Your task to perform on an android device: Search for a nightstand on IKEA. Image 0: 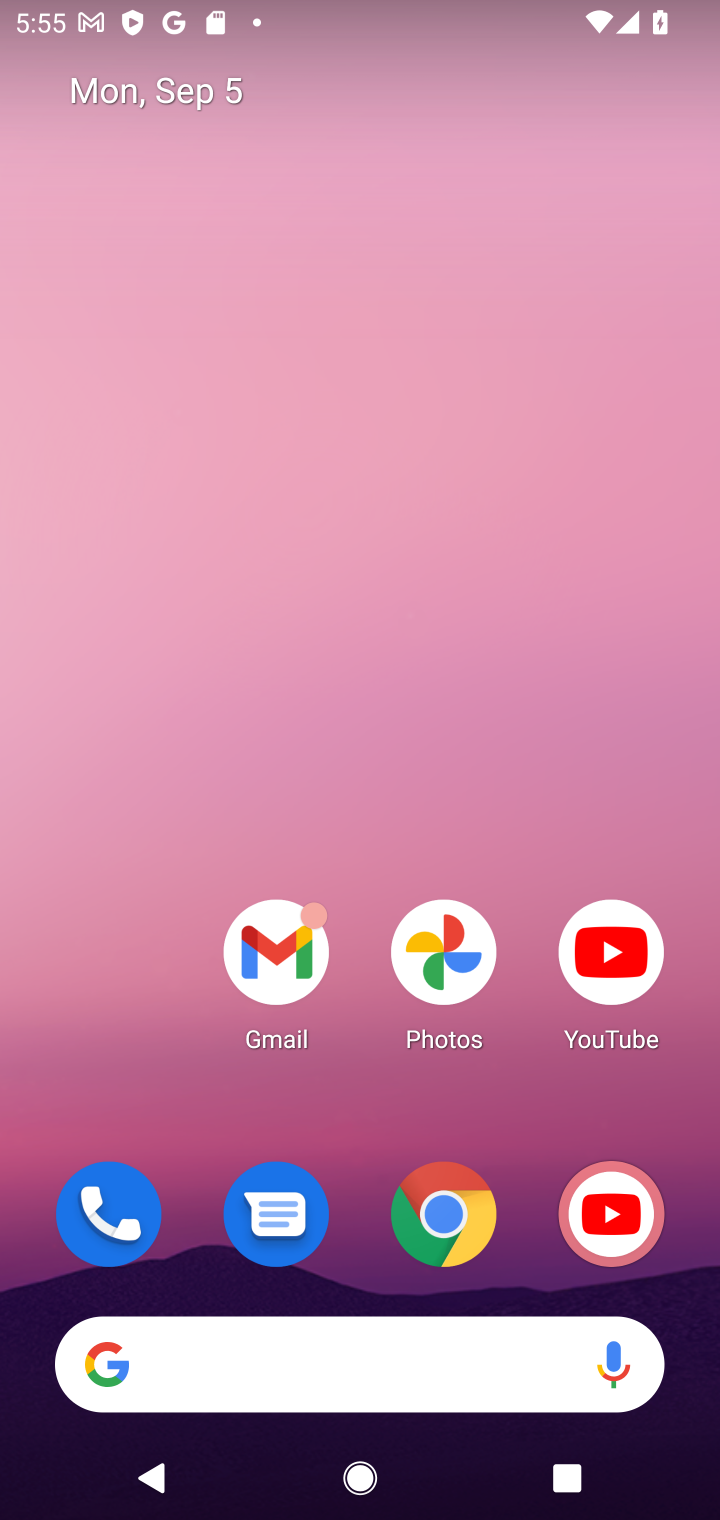
Step 0: click (345, 19)
Your task to perform on an android device: Search for a nightstand on IKEA. Image 1: 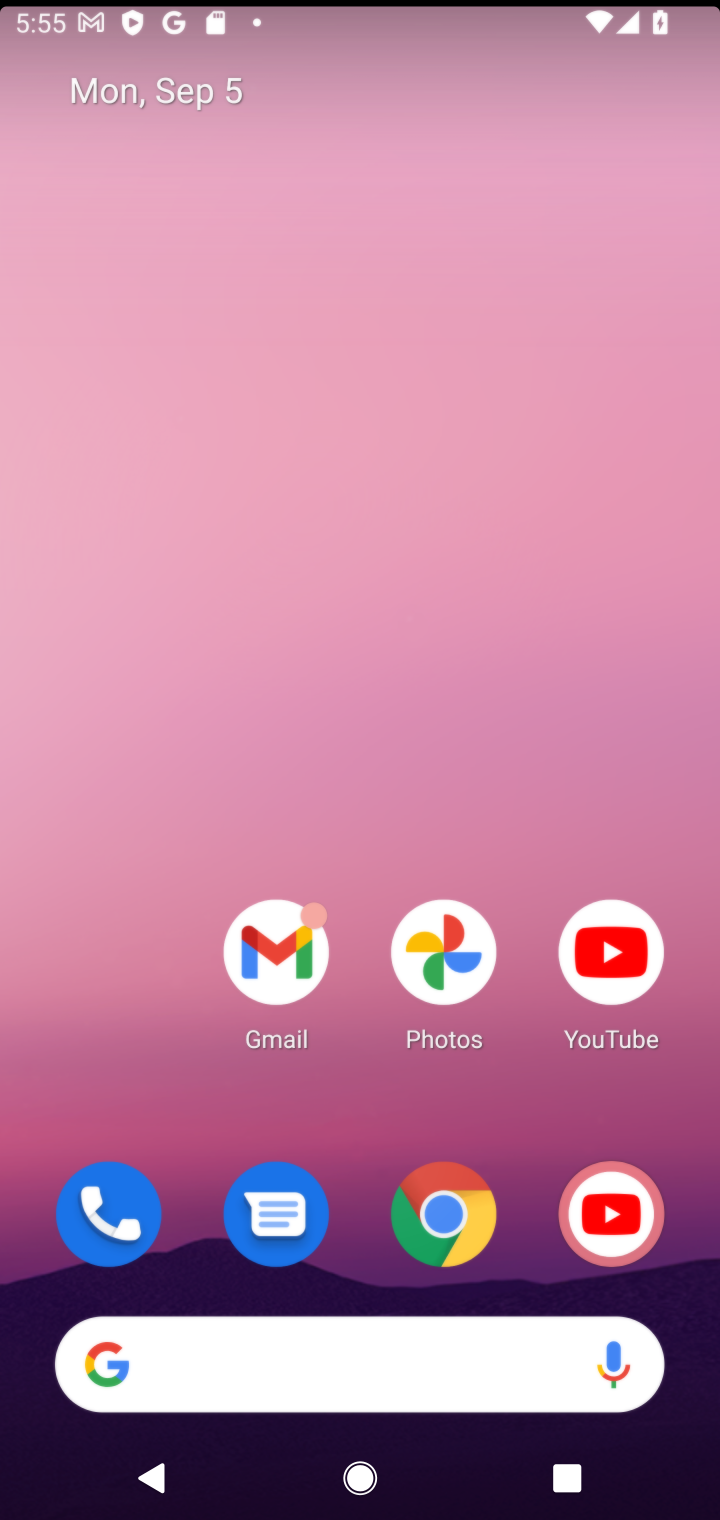
Step 1: drag from (350, 1085) to (443, 109)
Your task to perform on an android device: Search for a nightstand on IKEA. Image 2: 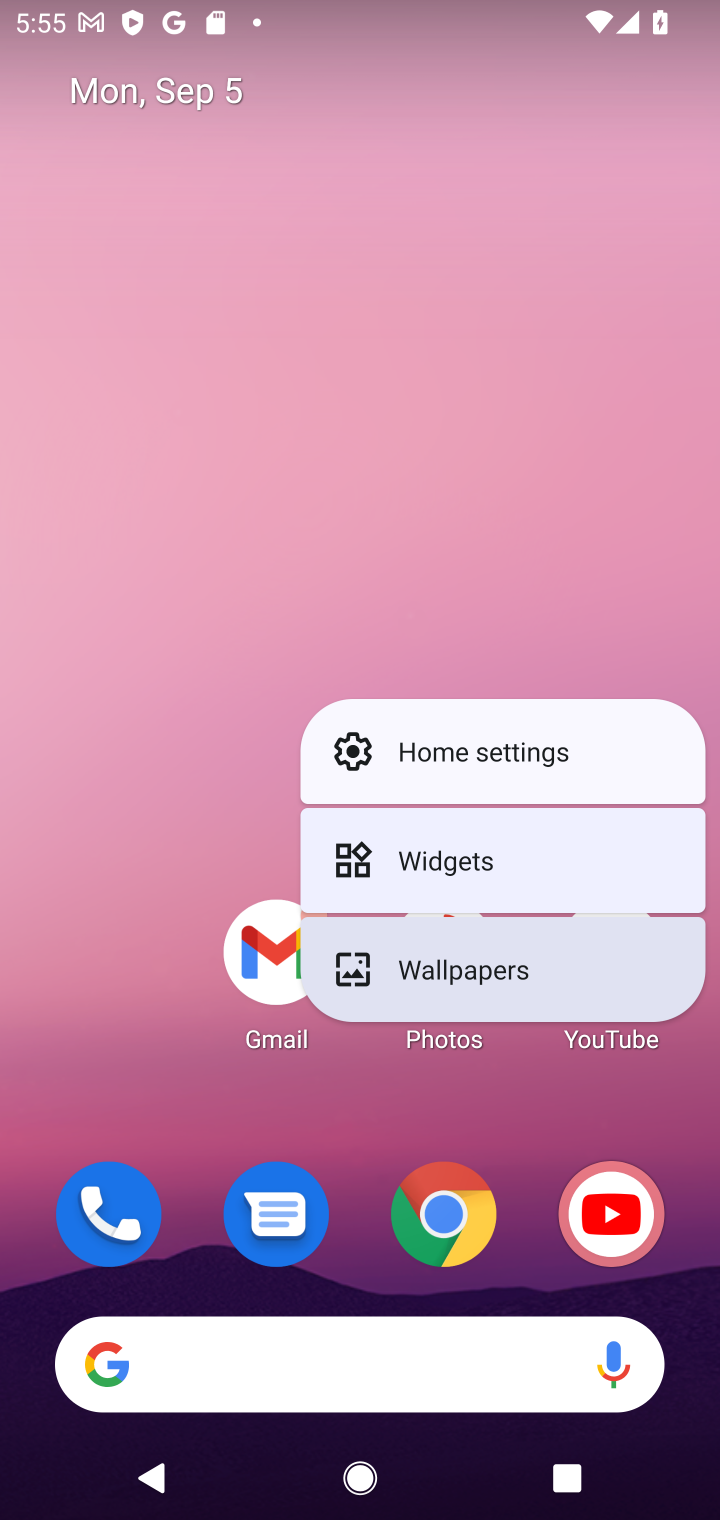
Step 2: click (188, 988)
Your task to perform on an android device: Search for a nightstand on IKEA. Image 3: 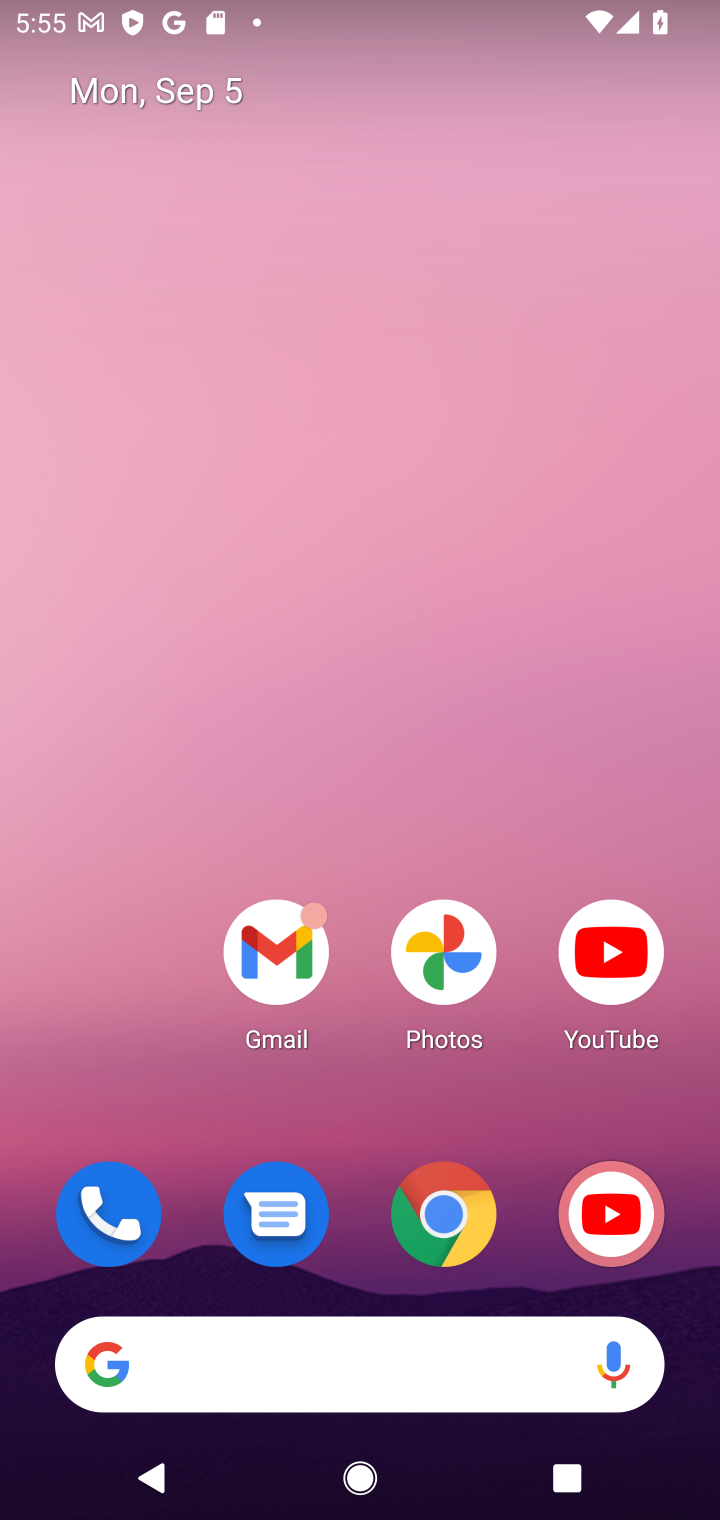
Step 3: click (302, 65)
Your task to perform on an android device: Search for a nightstand on IKEA. Image 4: 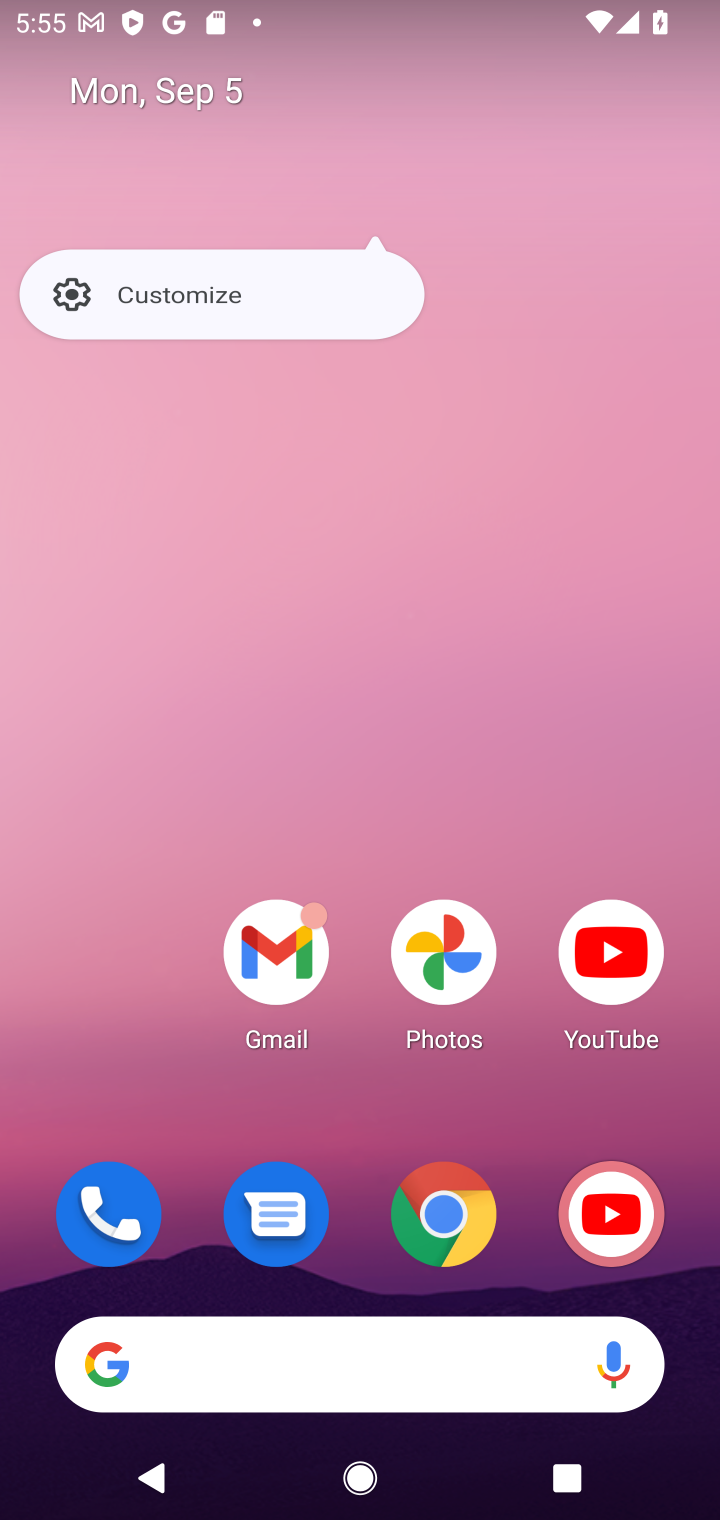
Step 4: click (492, 623)
Your task to perform on an android device: Search for a nightstand on IKEA. Image 5: 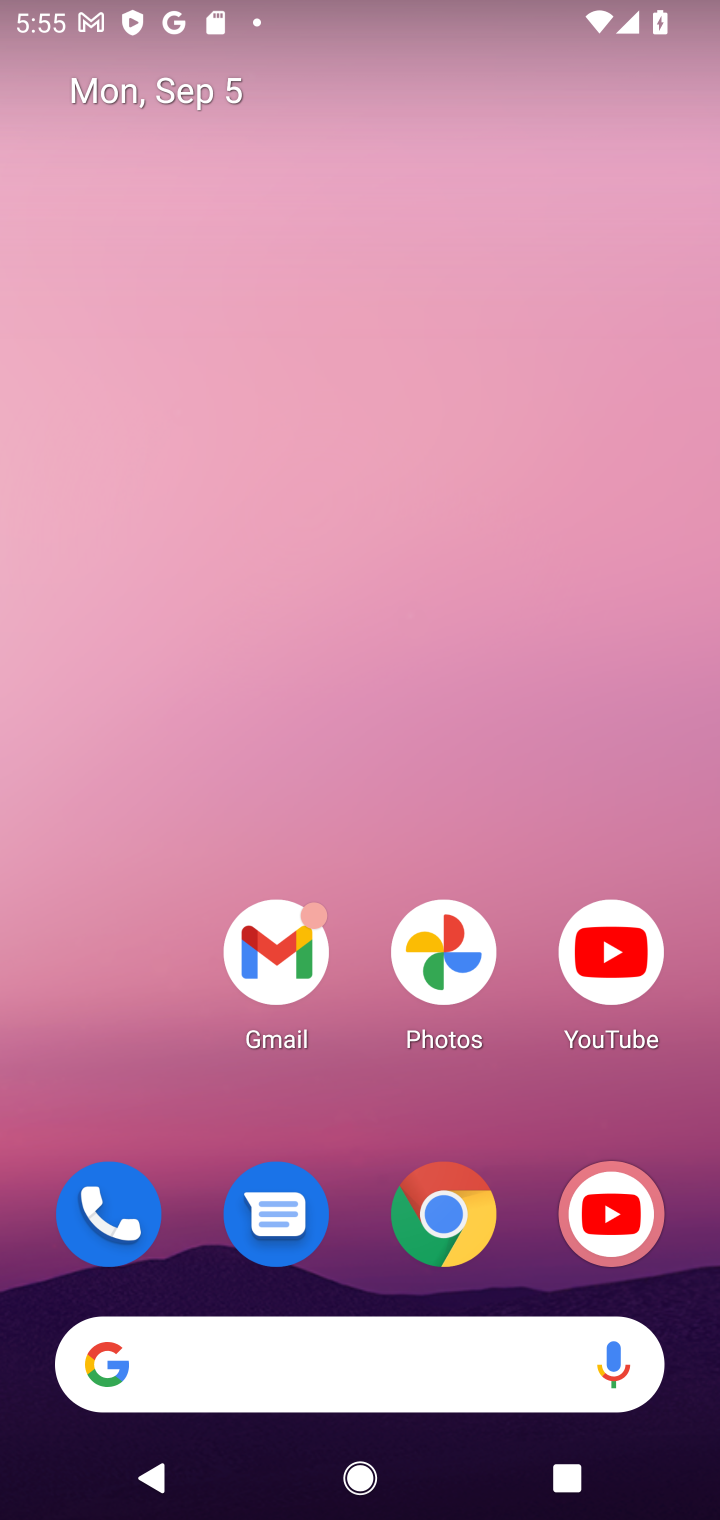
Step 5: click (411, 82)
Your task to perform on an android device: Search for a nightstand on IKEA. Image 6: 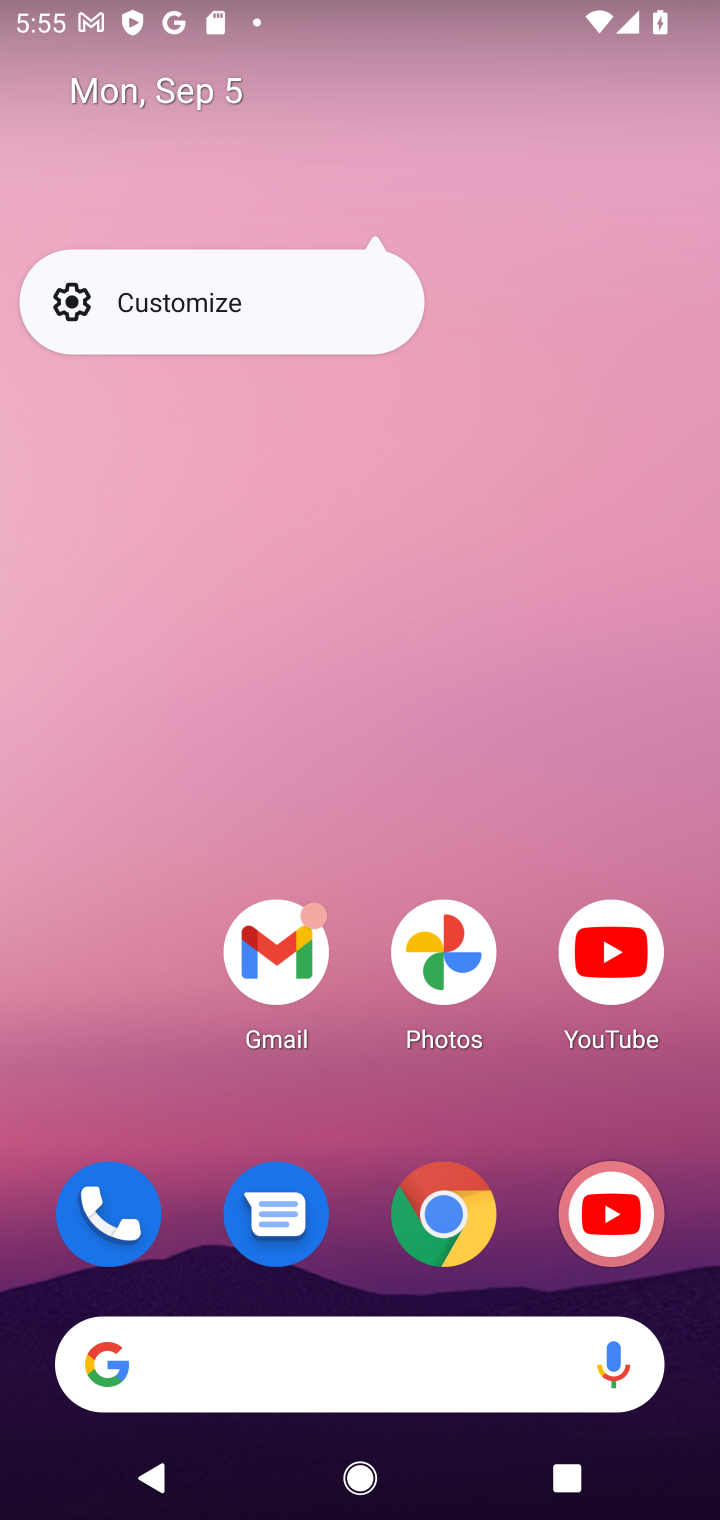
Step 6: drag from (498, 1045) to (338, 19)
Your task to perform on an android device: Search for a nightstand on IKEA. Image 7: 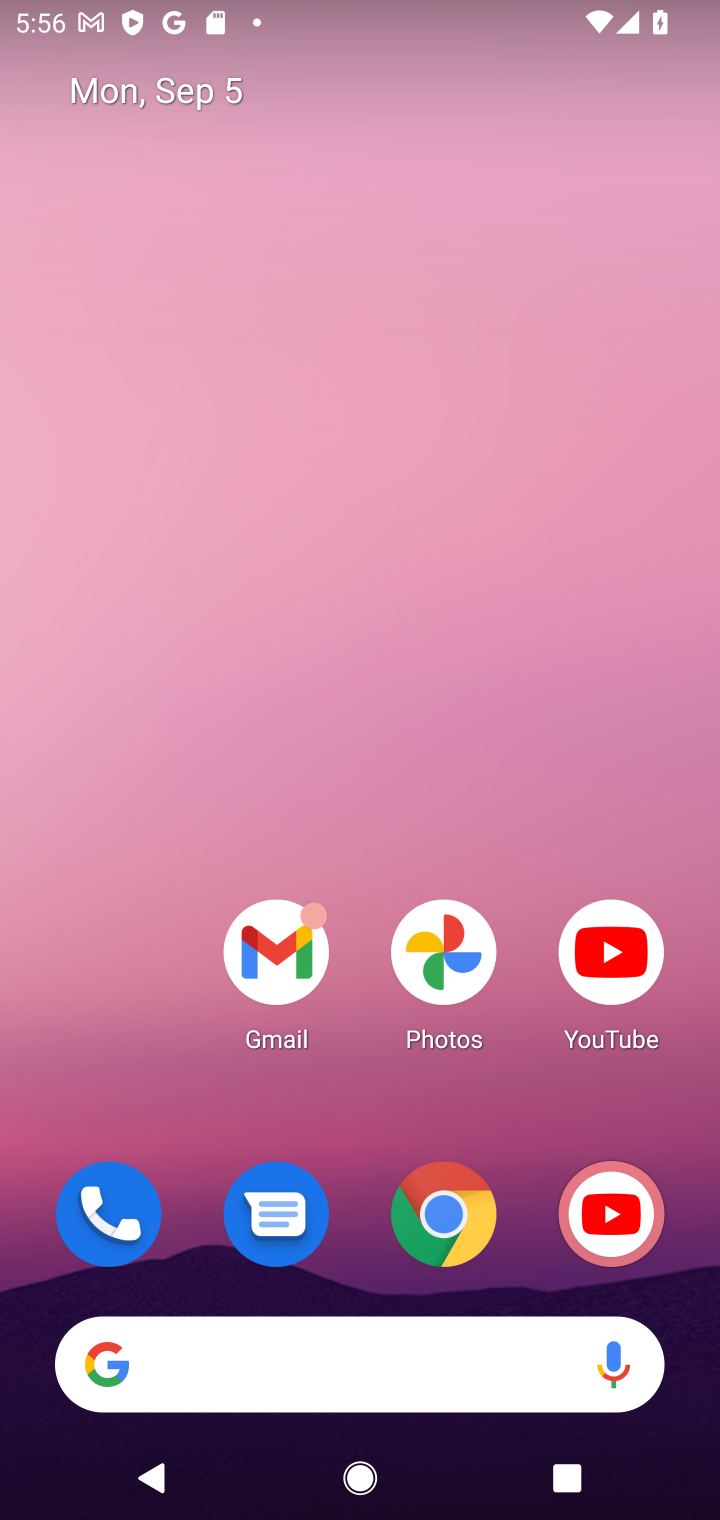
Step 7: click (425, 1209)
Your task to perform on an android device: Search for a nightstand on IKEA. Image 8: 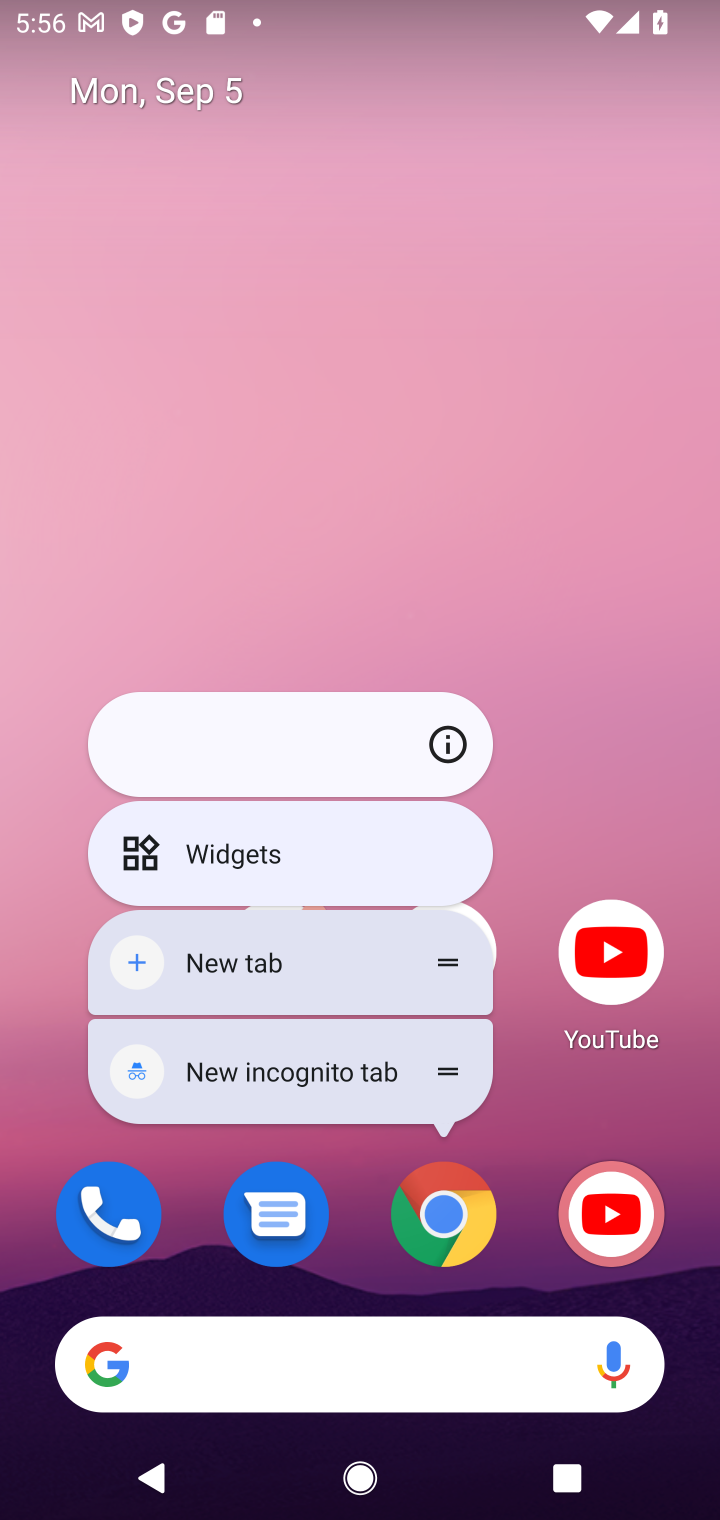
Step 8: click (393, 372)
Your task to perform on an android device: Search for a nightstand on IKEA. Image 9: 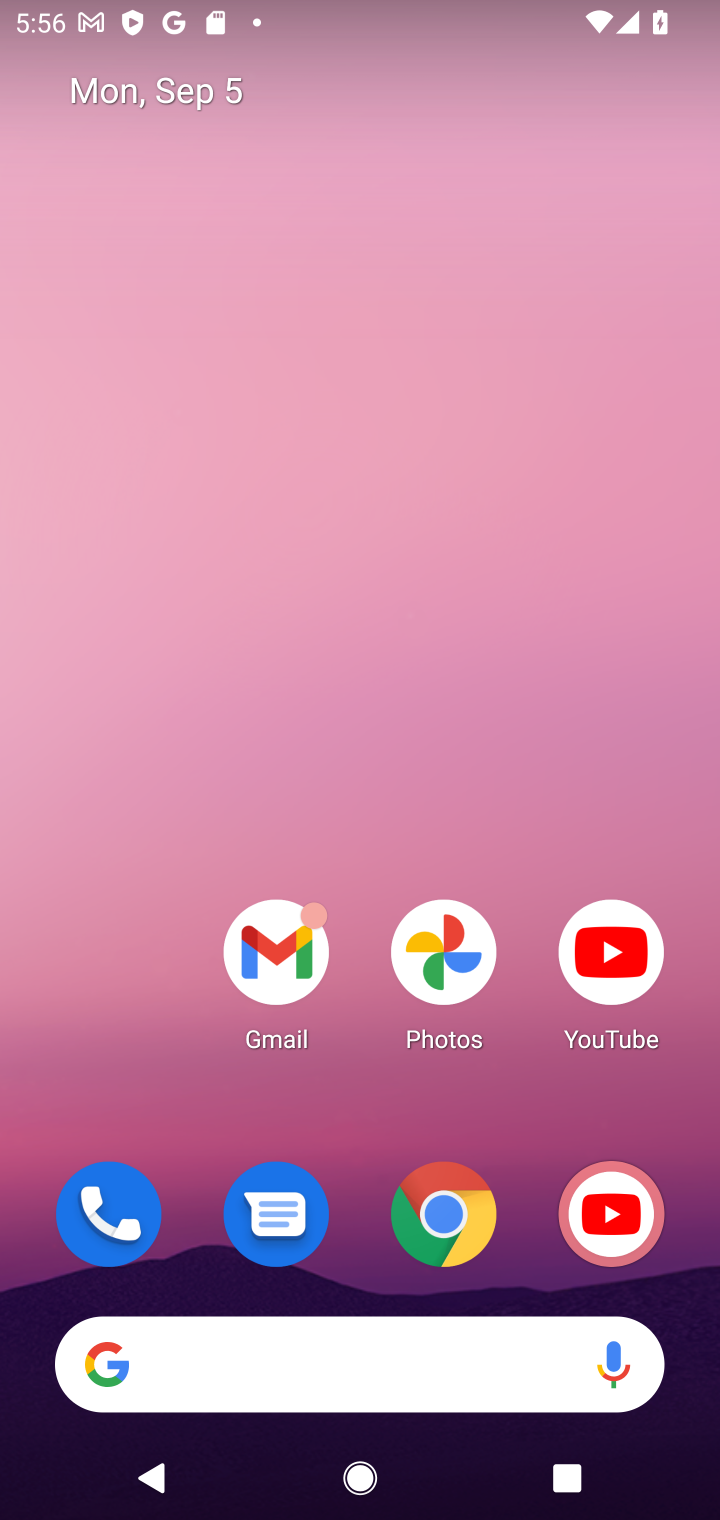
Step 9: click (429, 1210)
Your task to perform on an android device: Search for a nightstand on IKEA. Image 10: 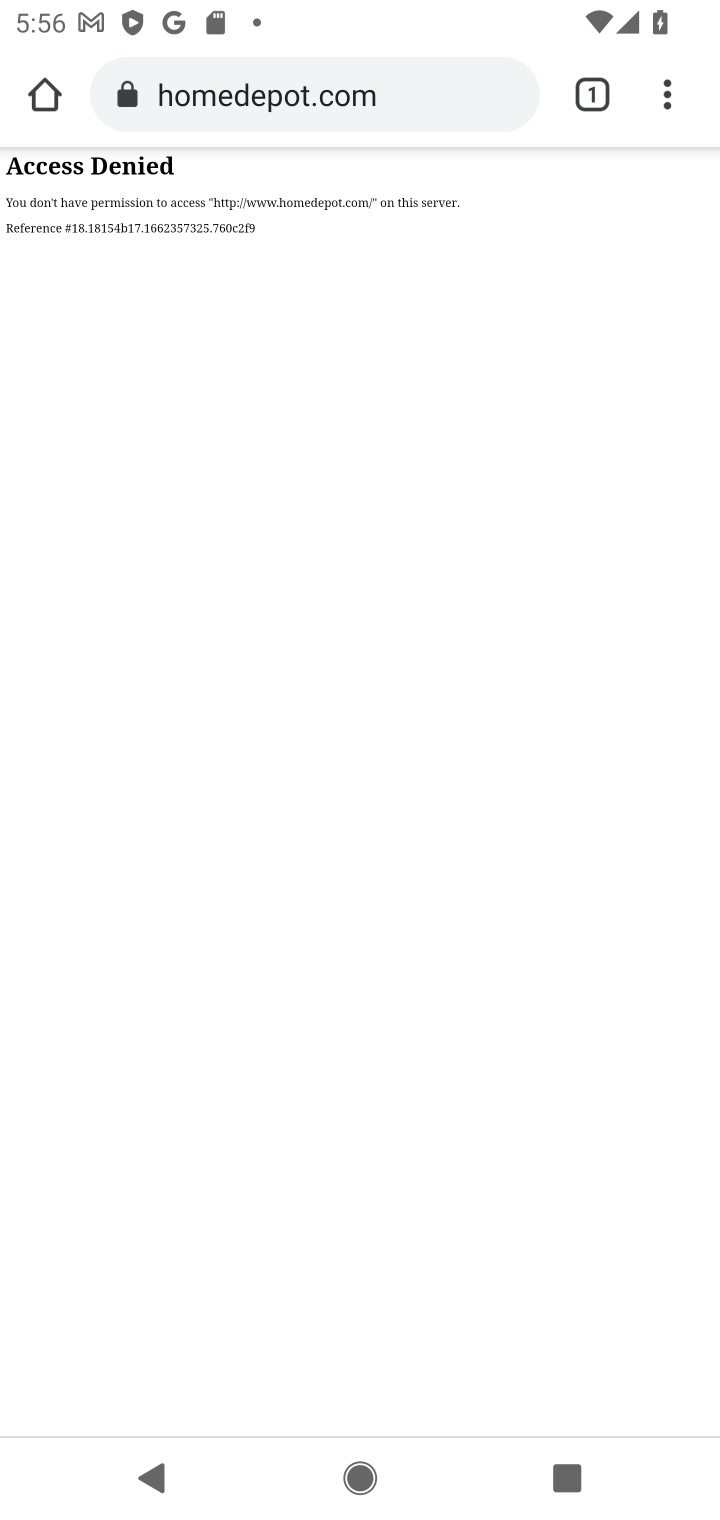
Step 10: click (316, 86)
Your task to perform on an android device: Search for a nightstand on IKEA. Image 11: 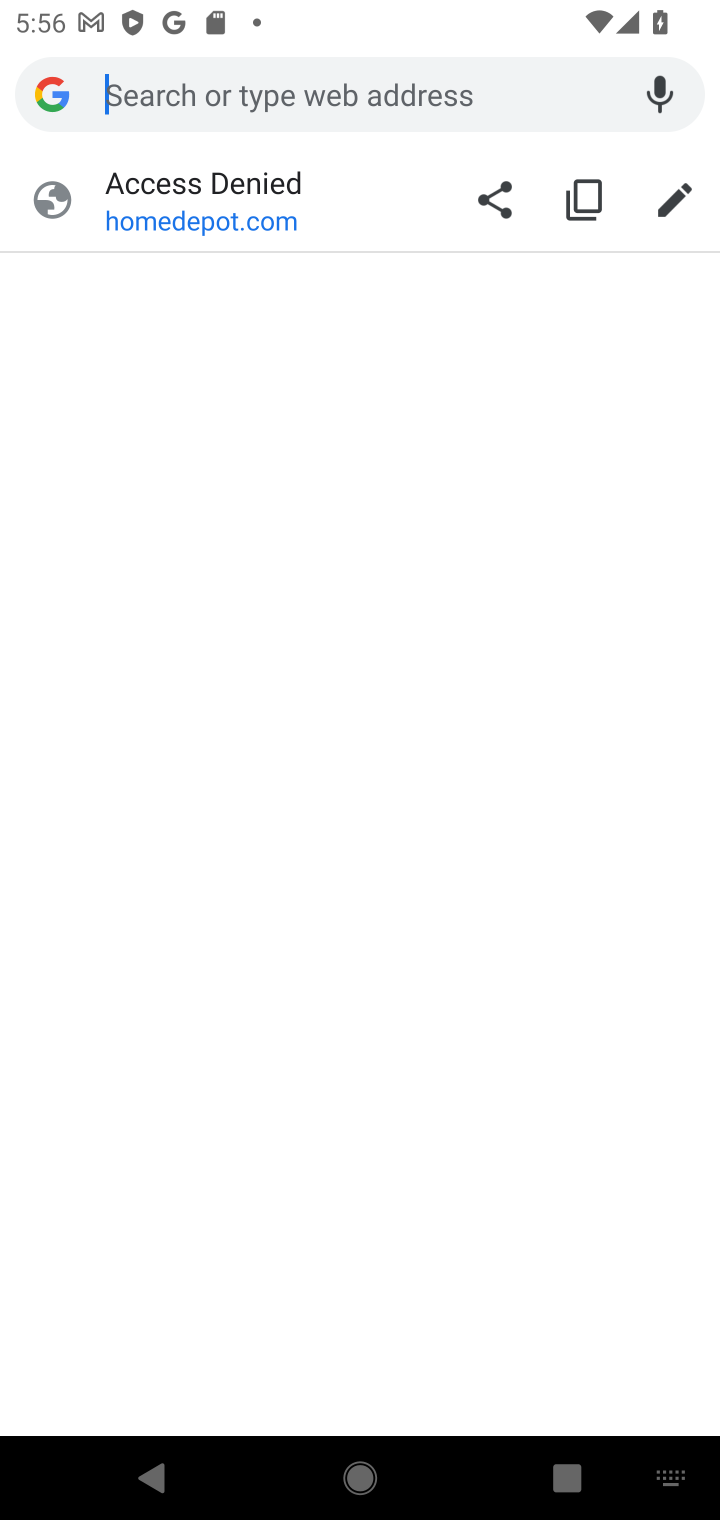
Step 11: type " IKEA"
Your task to perform on an android device: Search for a nightstand on IKEA. Image 12: 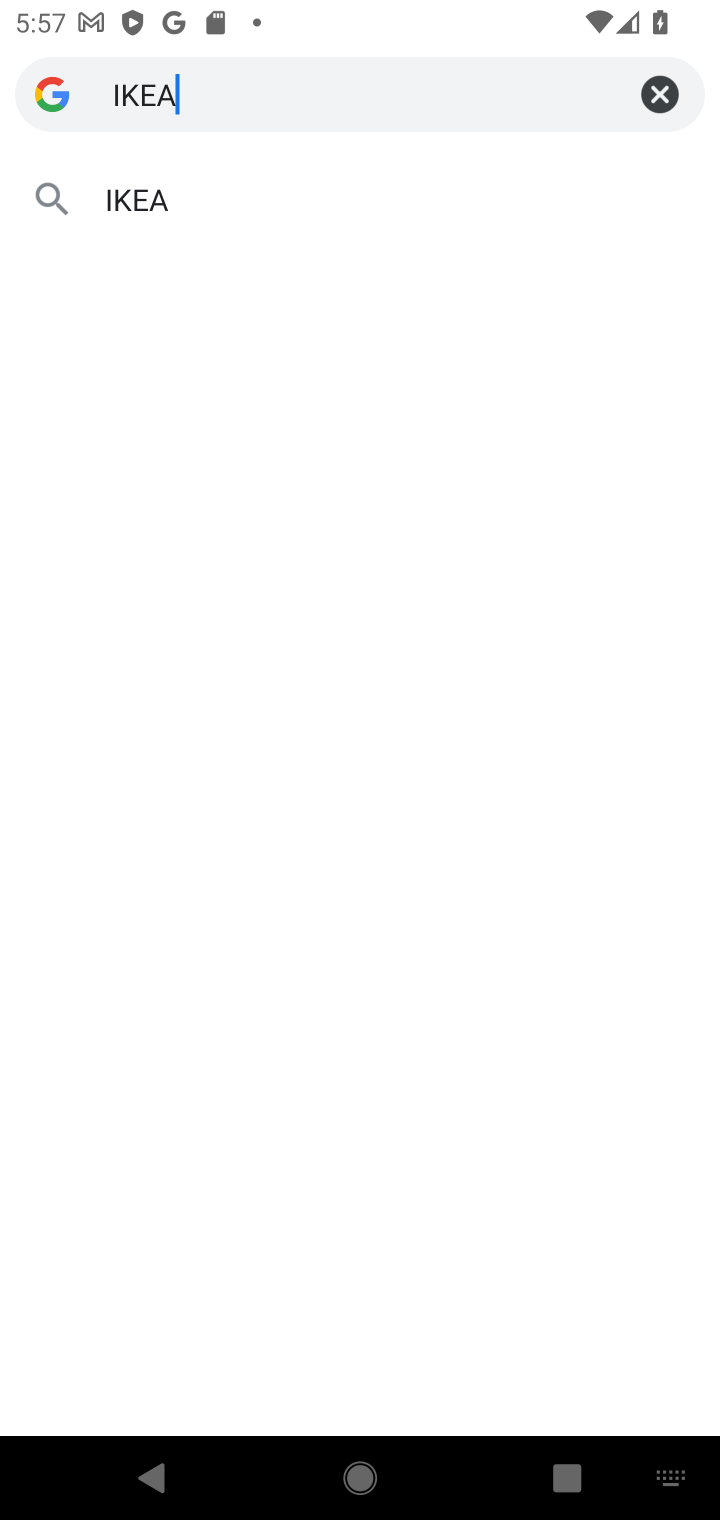
Step 12: click (120, 196)
Your task to perform on an android device: Search for a nightstand on IKEA. Image 13: 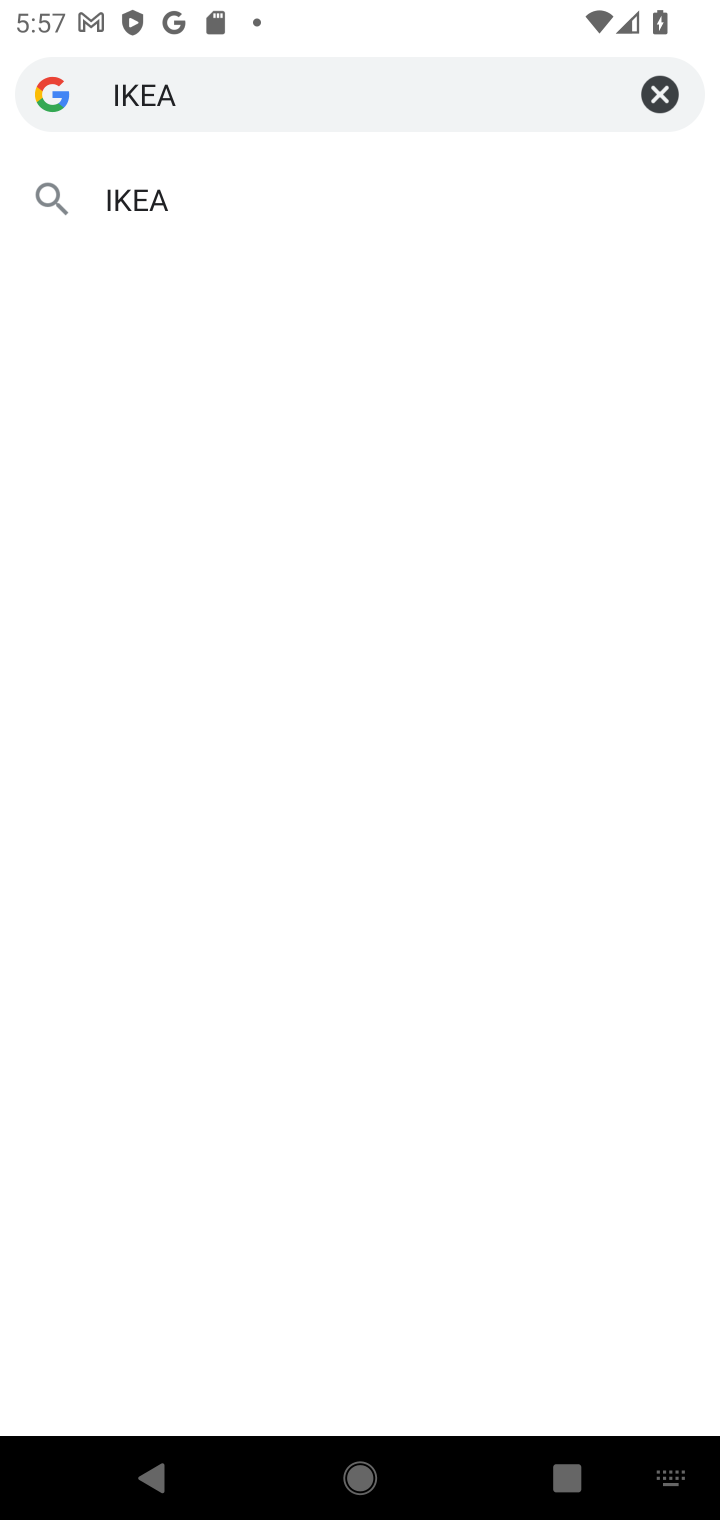
Step 13: click (123, 213)
Your task to perform on an android device: Search for a nightstand on IKEA. Image 14: 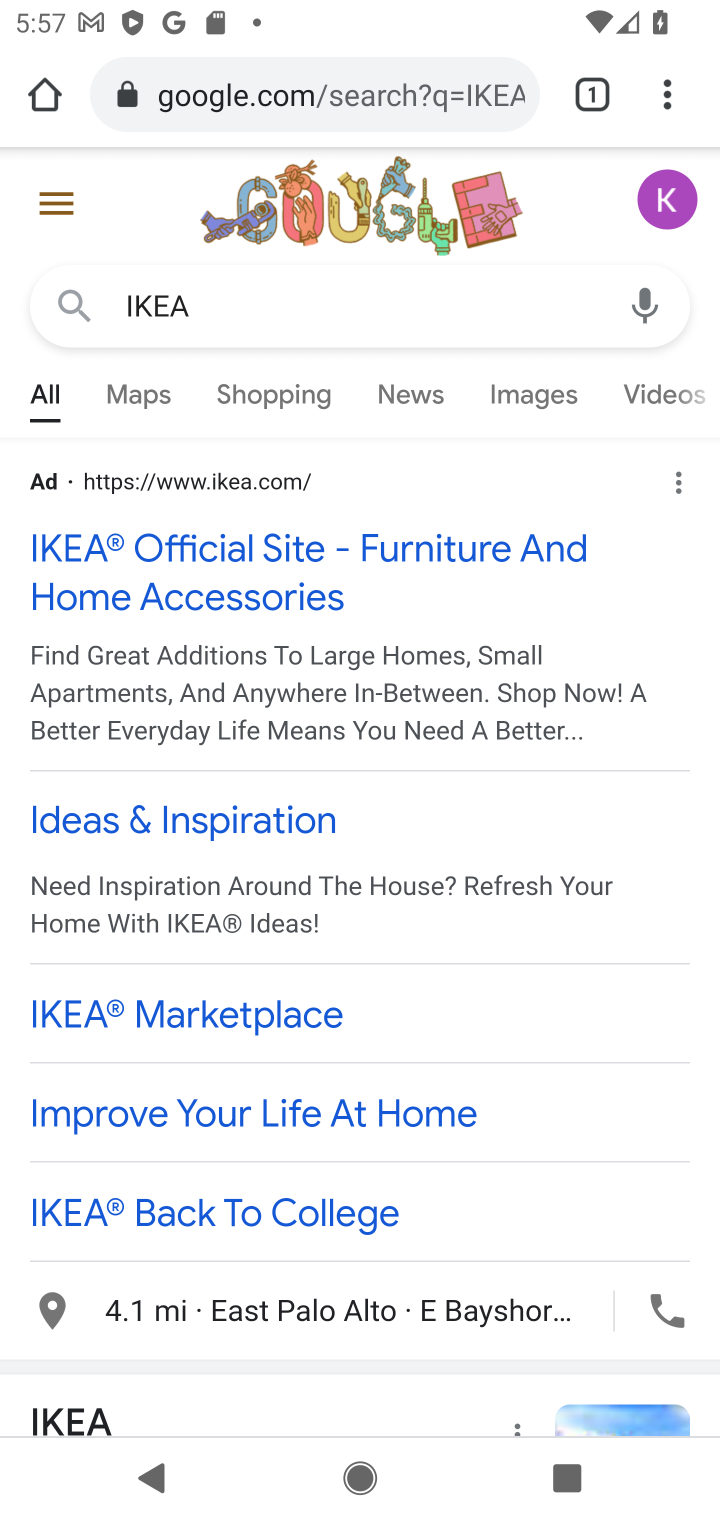
Step 14: click (122, 539)
Your task to perform on an android device: Search for a nightstand on IKEA. Image 15: 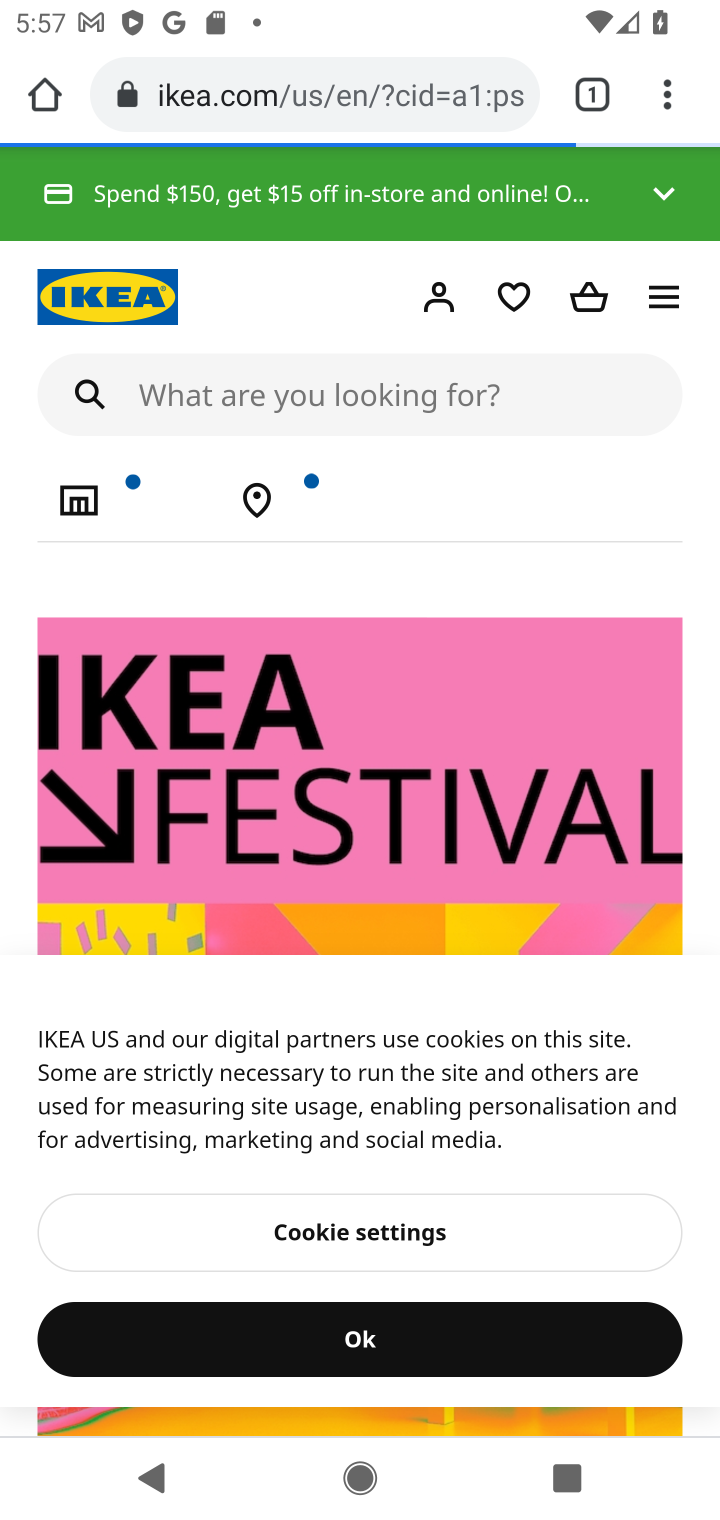
Step 15: click (141, 398)
Your task to perform on an android device: Search for a nightstand on IKEA. Image 16: 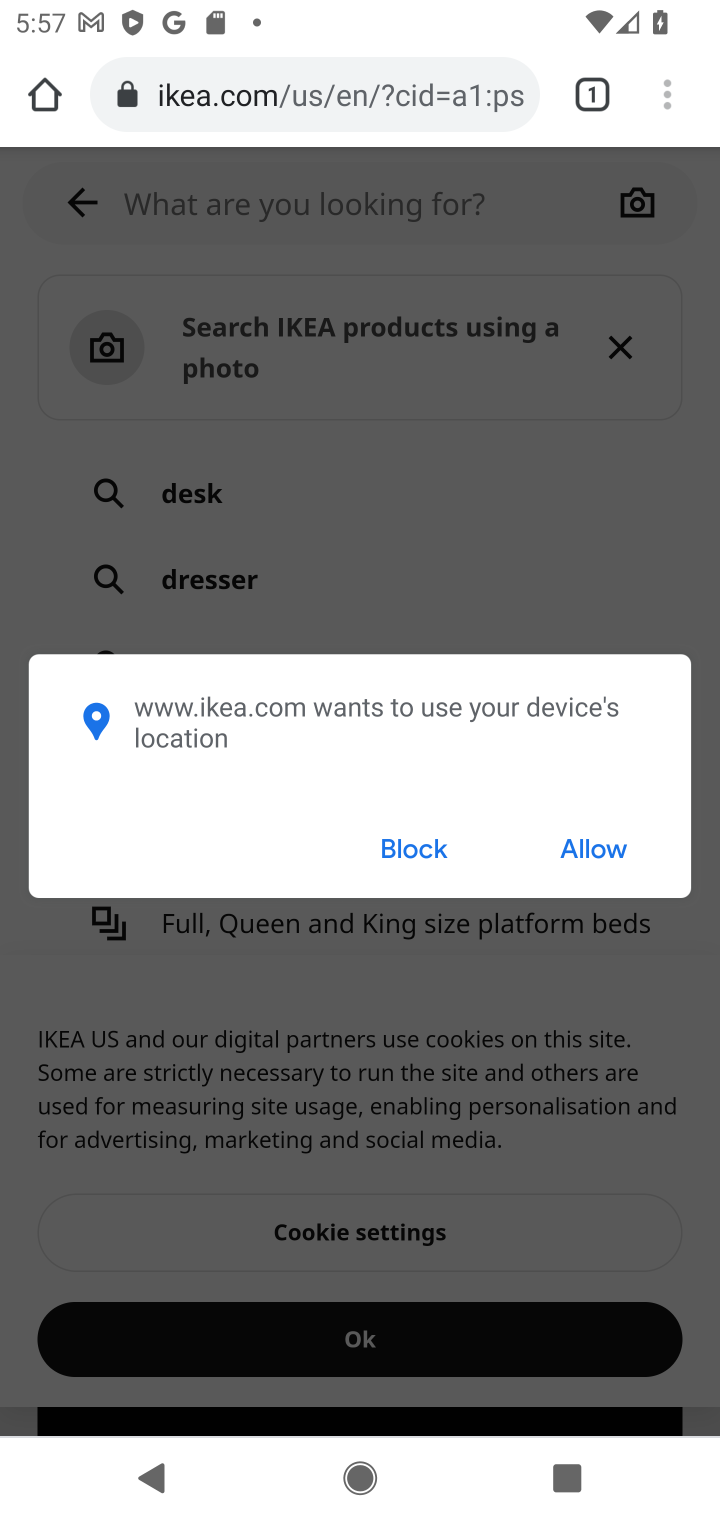
Step 16: click (576, 837)
Your task to perform on an android device: Search for a nightstand on IKEA. Image 17: 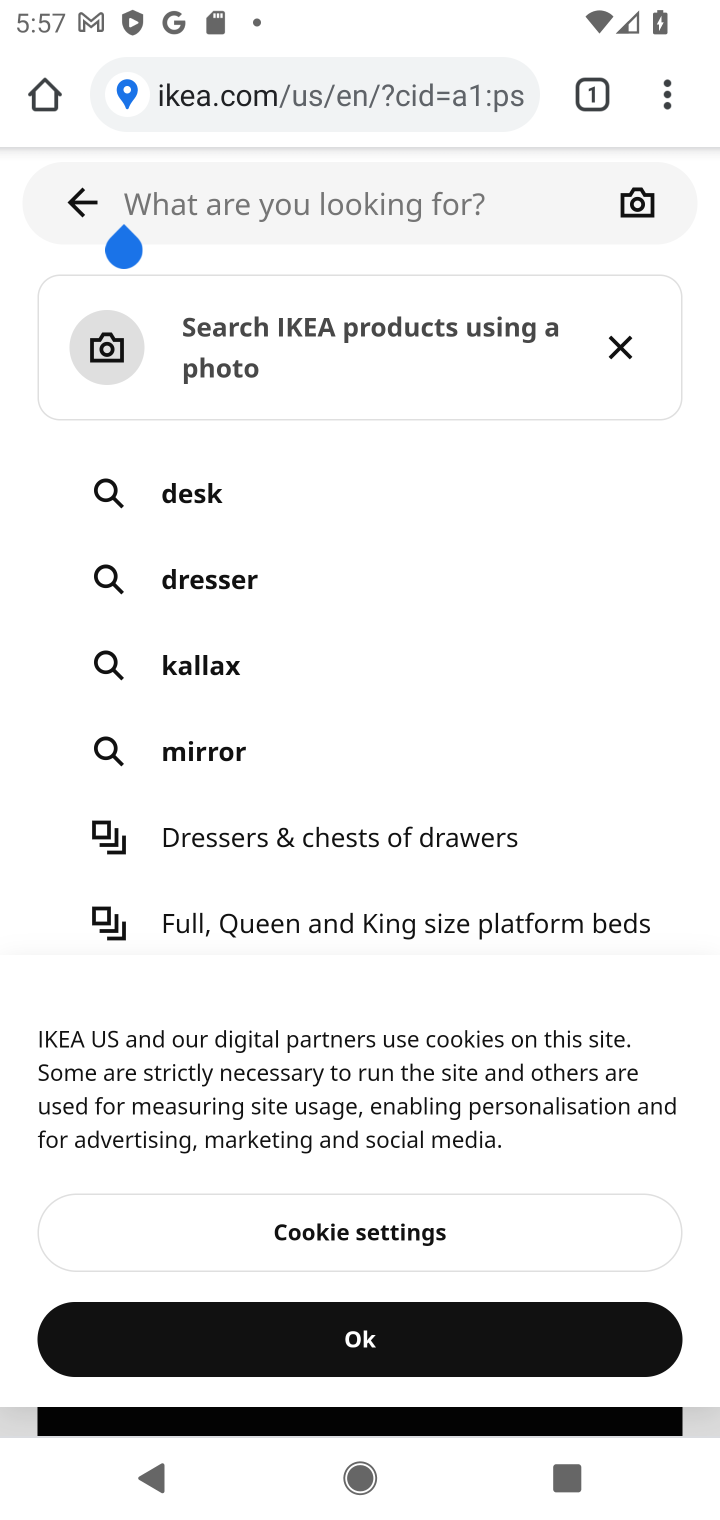
Step 17: type "nightstand"
Your task to perform on an android device: Search for a nightstand on IKEA. Image 18: 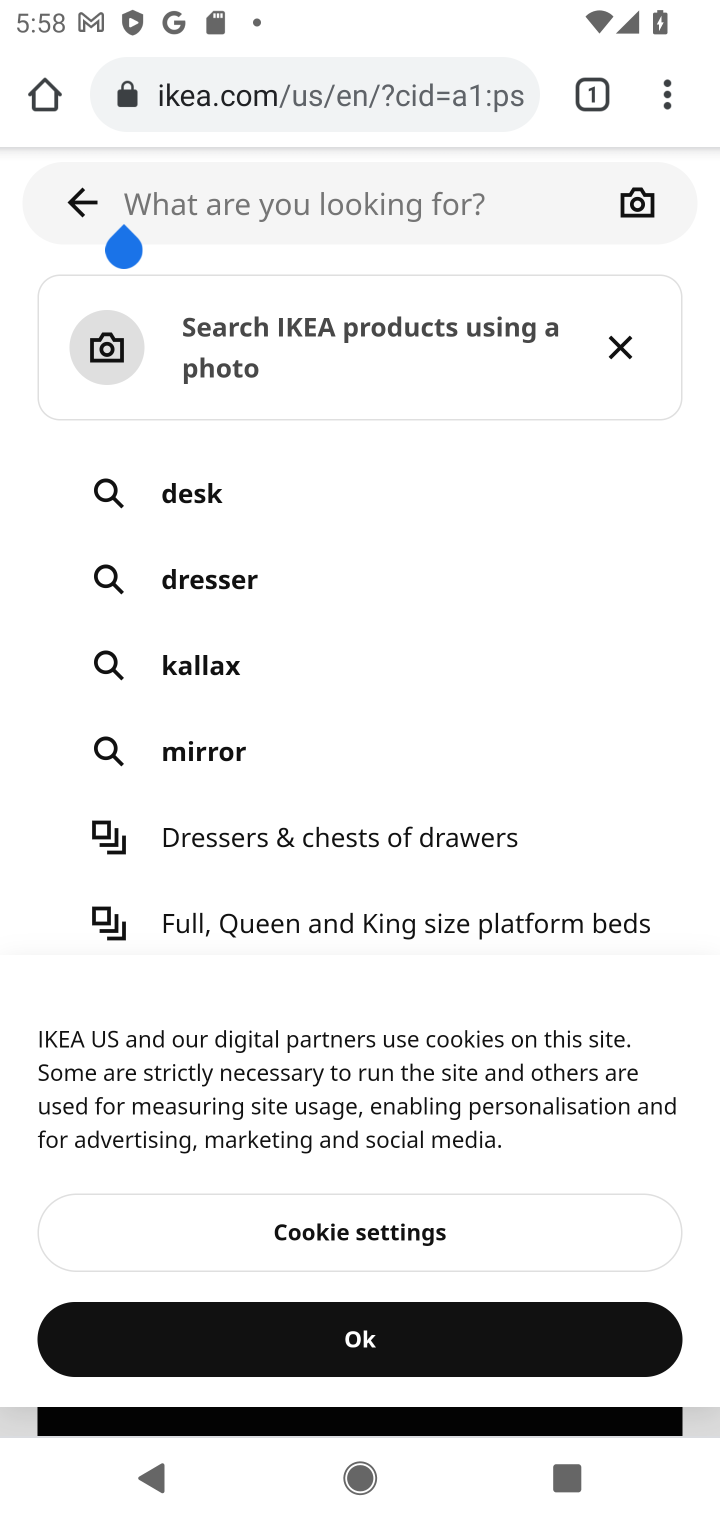
Step 18: click (359, 225)
Your task to perform on an android device: Search for a nightstand on IKEA. Image 19: 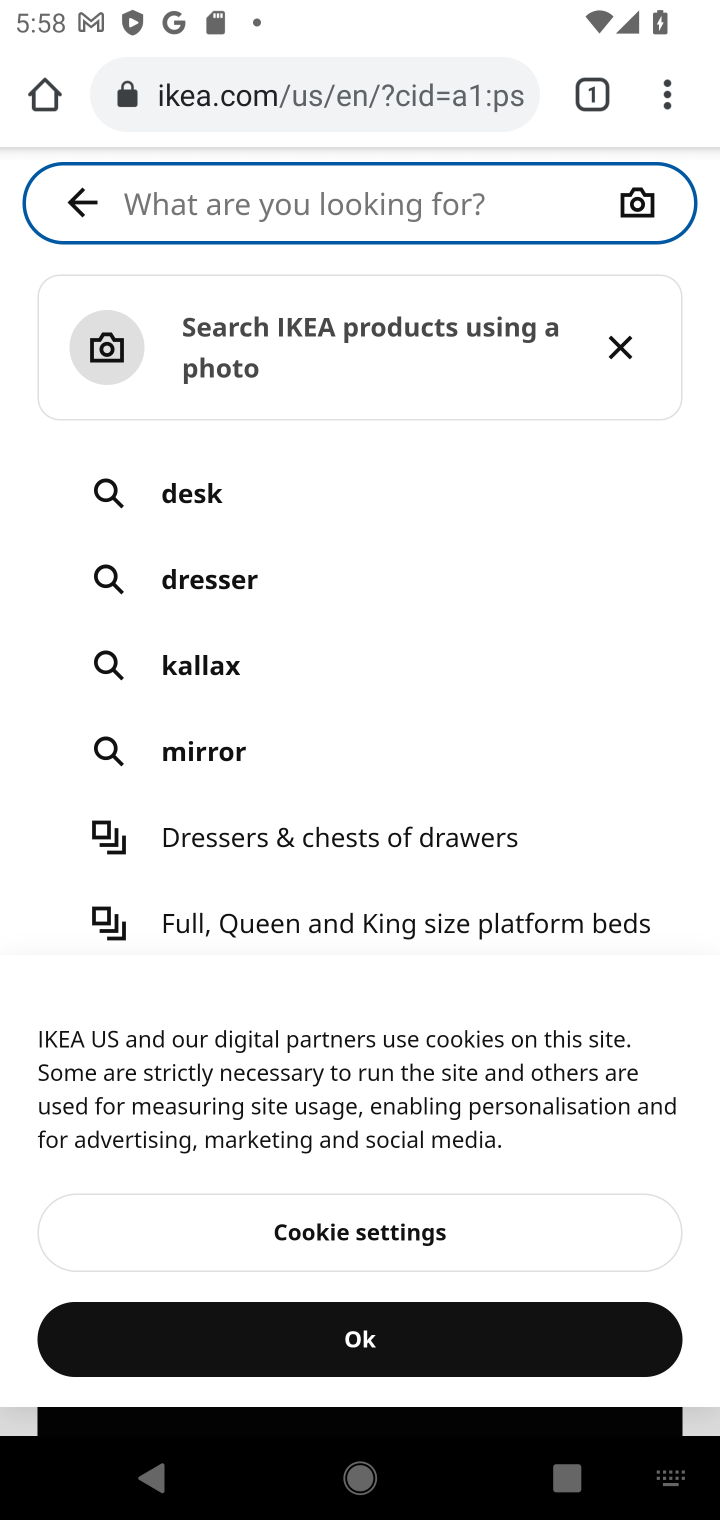
Step 19: click (166, 203)
Your task to perform on an android device: Search for a nightstand on IKEA. Image 20: 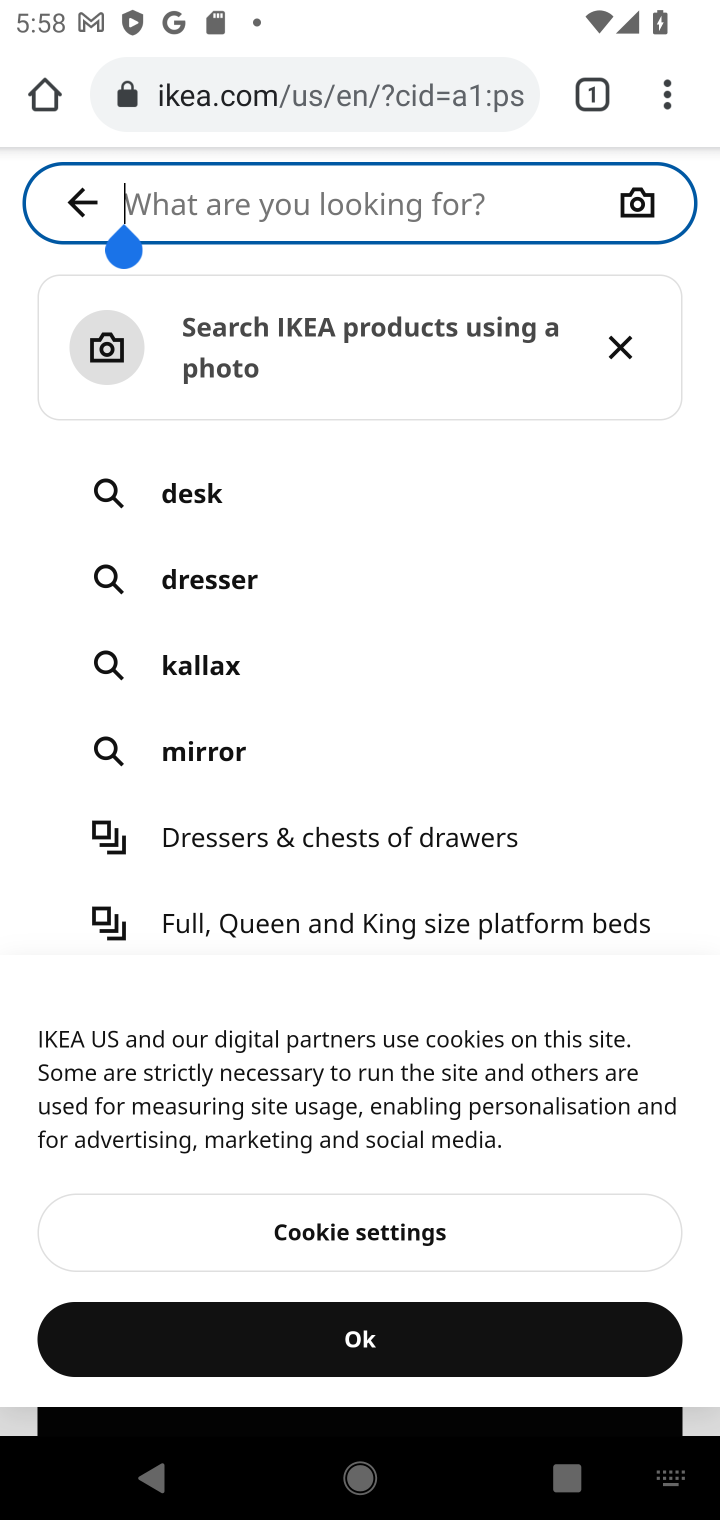
Step 20: type "nightstand "
Your task to perform on an android device: Search for a nightstand on IKEA. Image 21: 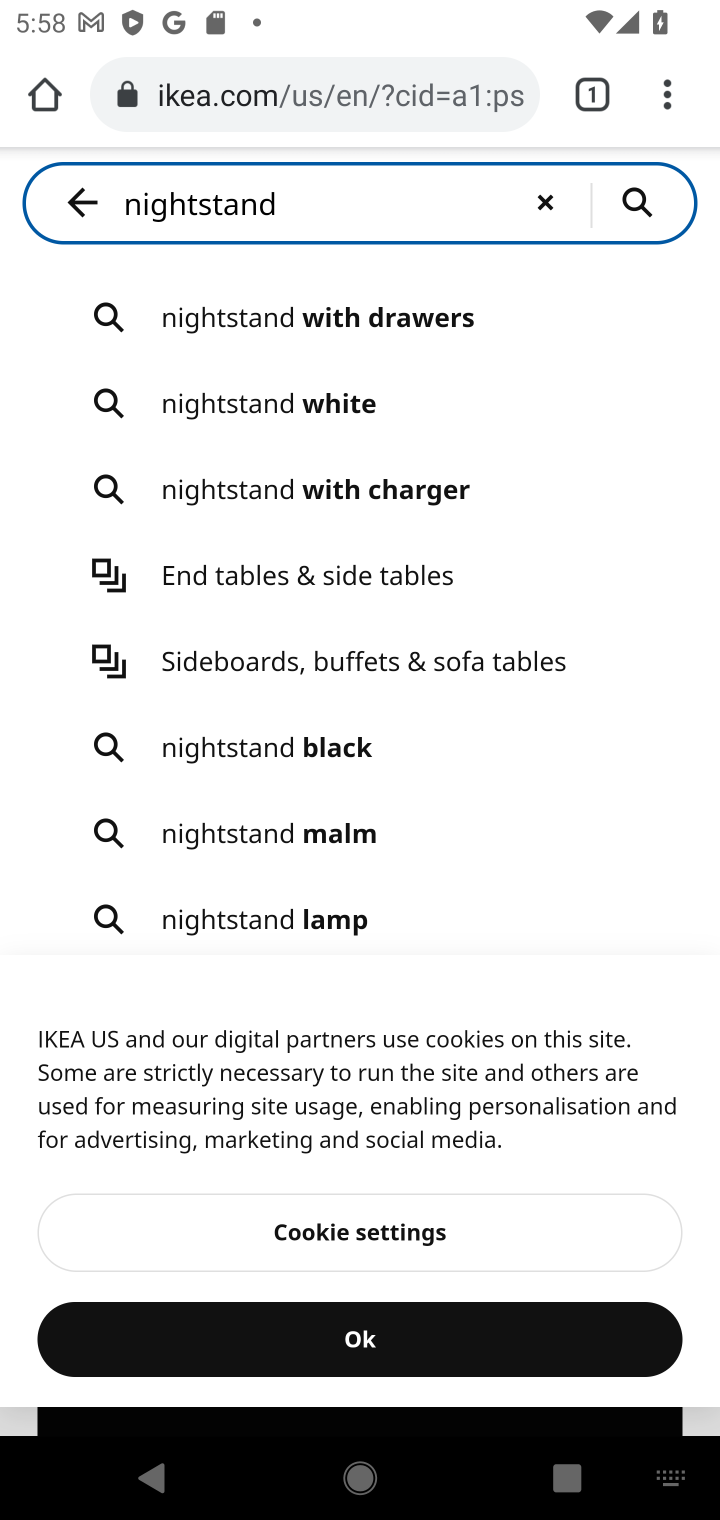
Step 21: click (222, 394)
Your task to perform on an android device: Search for a nightstand on IKEA. Image 22: 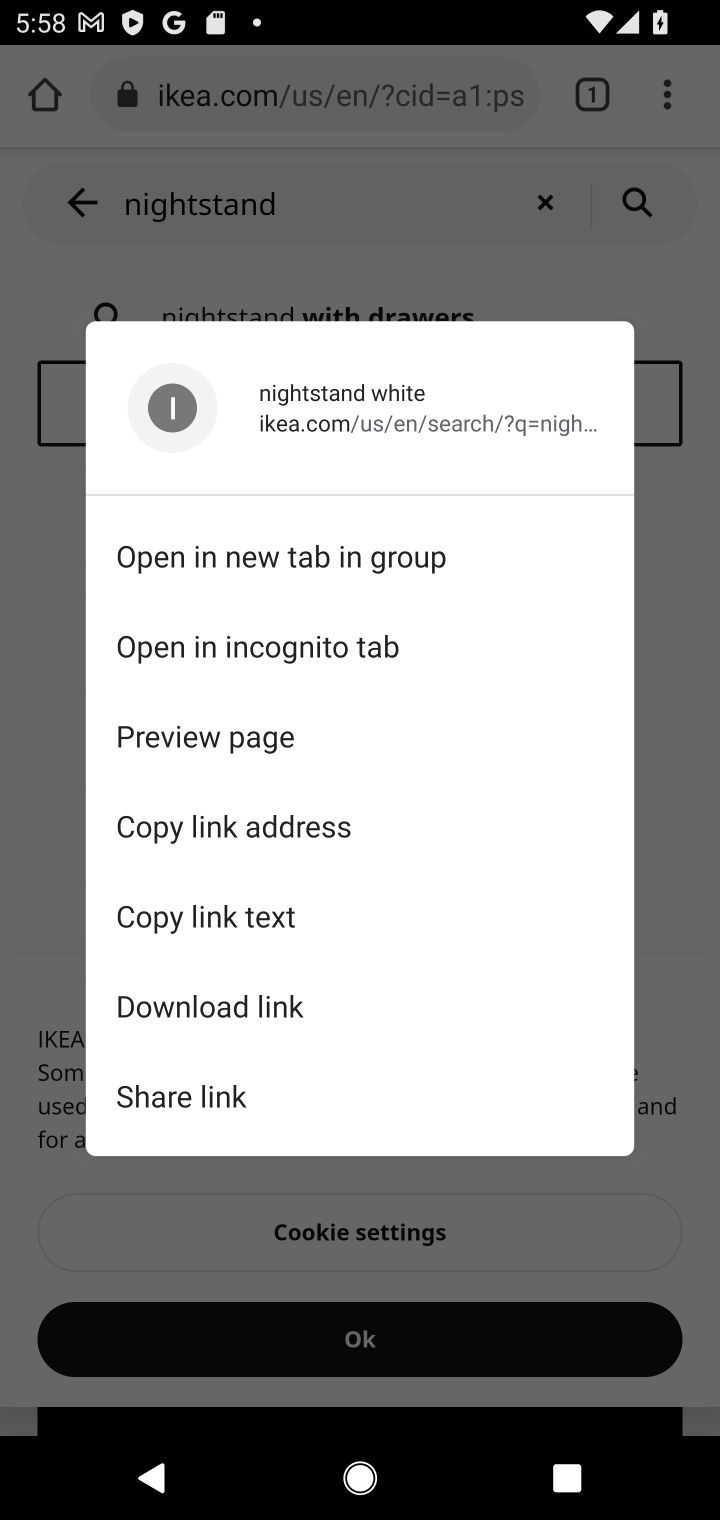
Step 22: click (177, 543)
Your task to perform on an android device: Search for a nightstand on IKEA. Image 23: 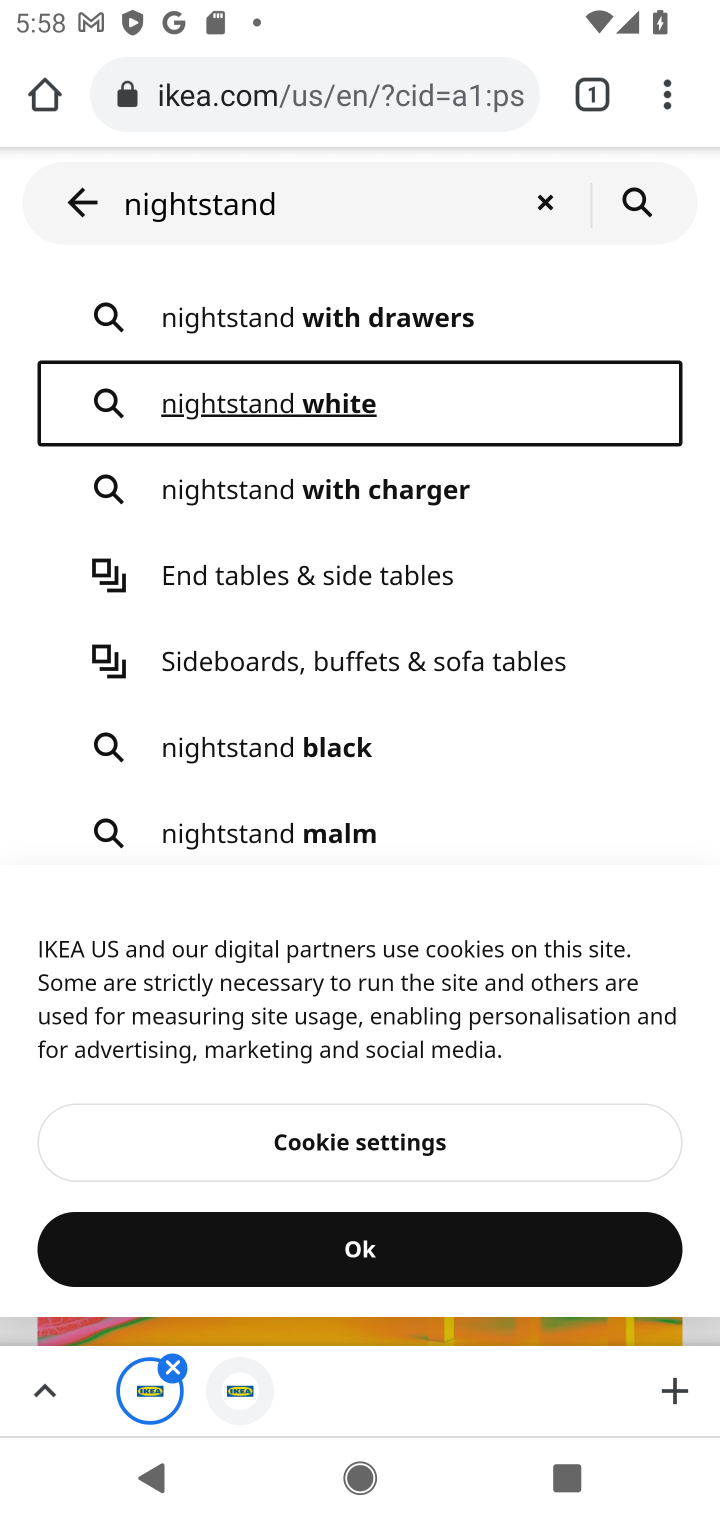
Step 23: task complete